Your task to perform on an android device: add a contact Image 0: 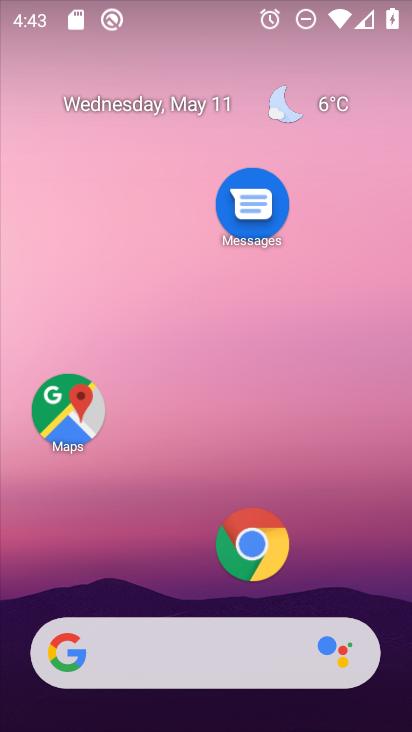
Step 0: drag from (129, 518) to (202, 33)
Your task to perform on an android device: add a contact Image 1: 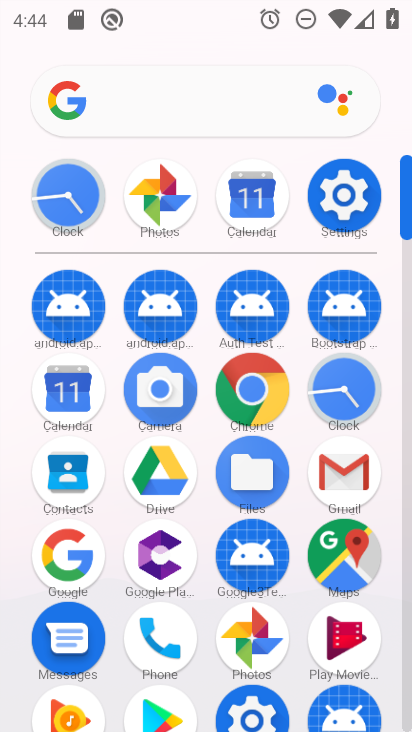
Step 1: click (69, 475)
Your task to perform on an android device: add a contact Image 2: 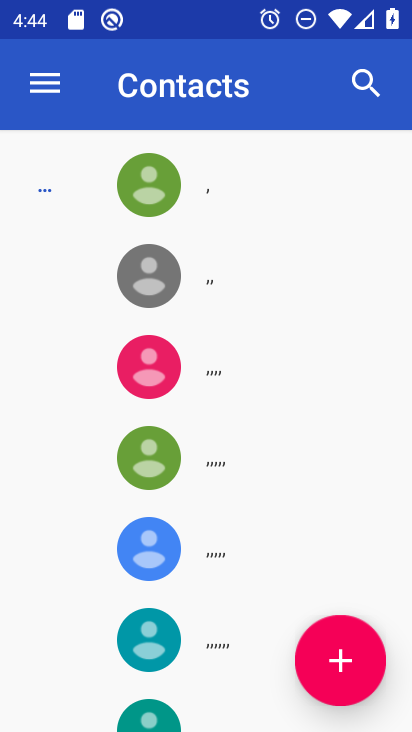
Step 2: click (344, 659)
Your task to perform on an android device: add a contact Image 3: 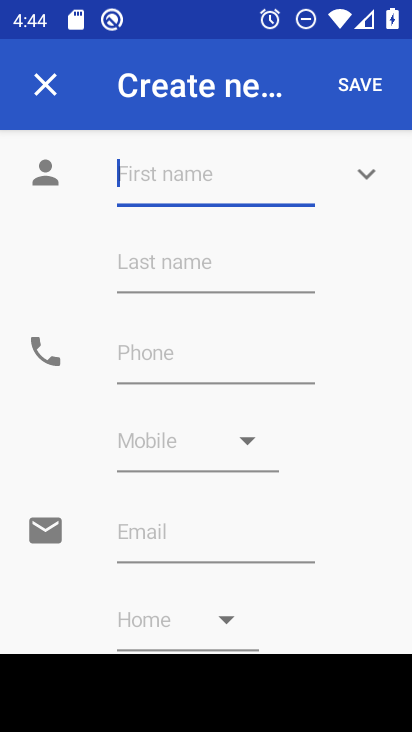
Step 3: type "fbgfb"
Your task to perform on an android device: add a contact Image 4: 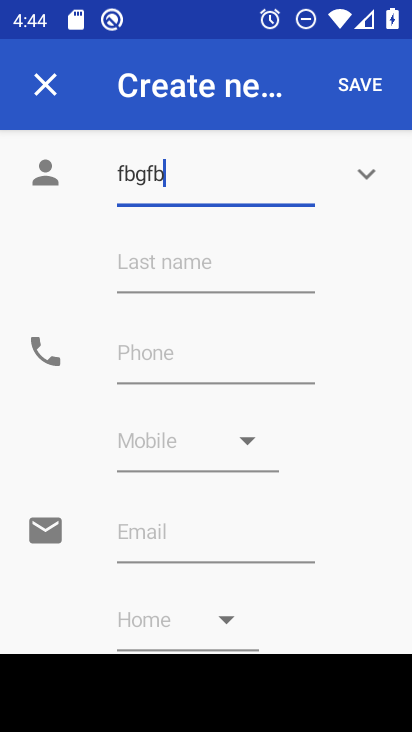
Step 4: click (156, 356)
Your task to perform on an android device: add a contact Image 5: 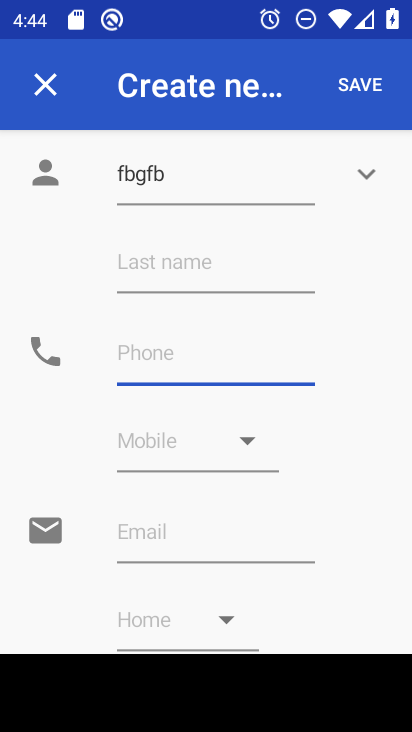
Step 5: type "65656"
Your task to perform on an android device: add a contact Image 6: 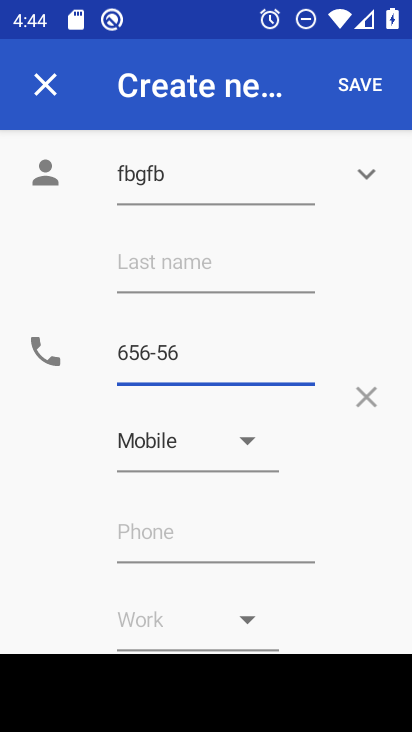
Step 6: click (361, 81)
Your task to perform on an android device: add a contact Image 7: 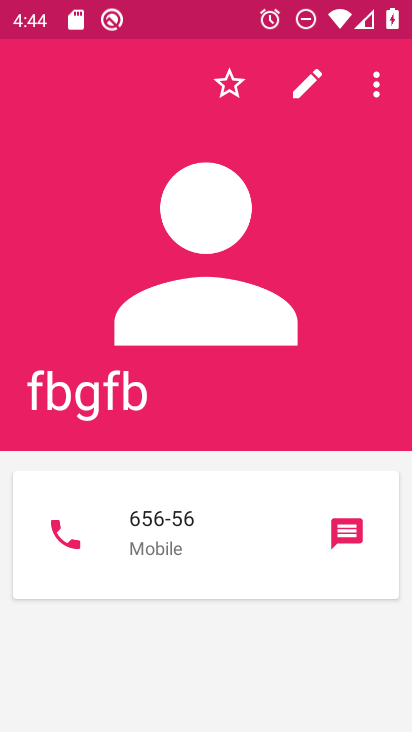
Step 7: task complete